Your task to perform on an android device: see sites visited before in the chrome app Image 0: 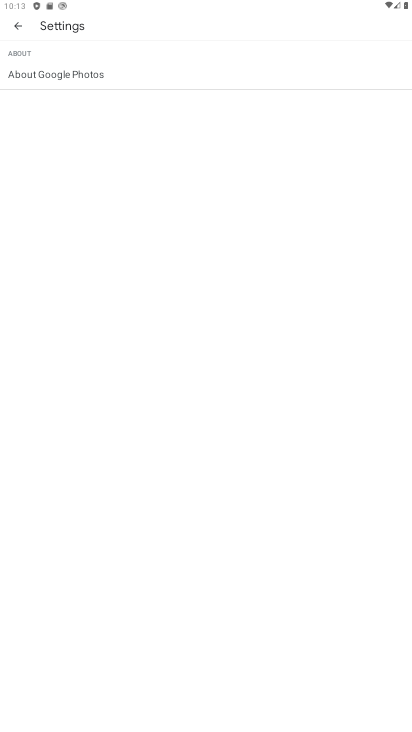
Step 0: press home button
Your task to perform on an android device: see sites visited before in the chrome app Image 1: 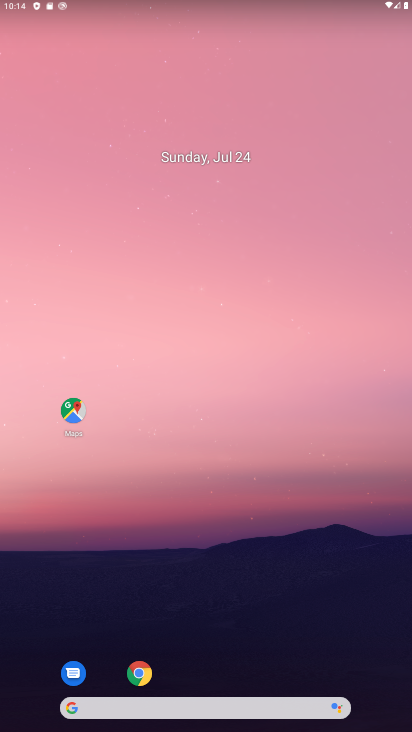
Step 1: click (139, 673)
Your task to perform on an android device: see sites visited before in the chrome app Image 2: 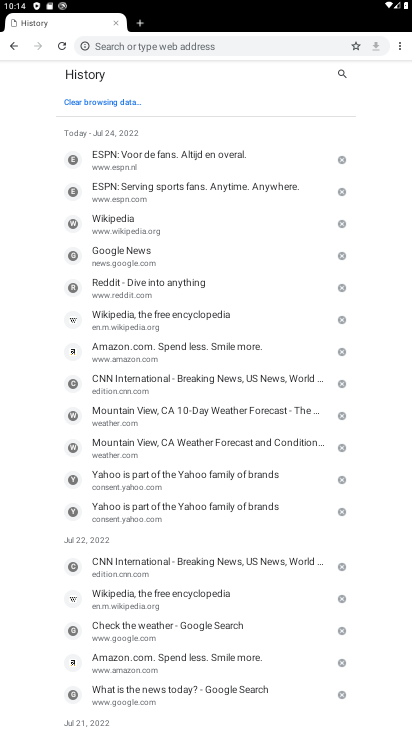
Step 2: task complete